Your task to perform on an android device: Open accessibility settings Image 0: 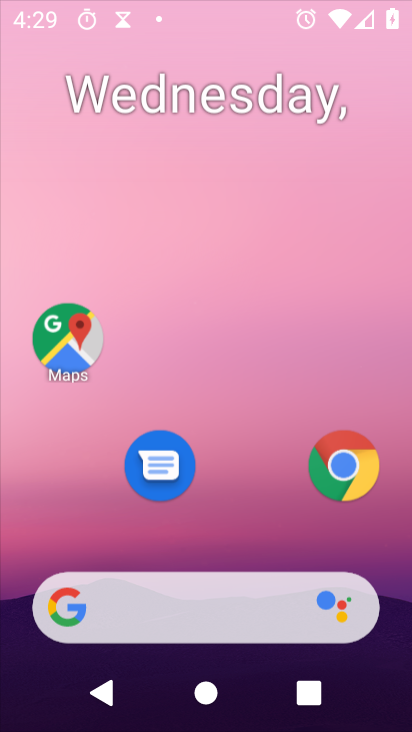
Step 0: drag from (265, 551) to (185, 172)
Your task to perform on an android device: Open accessibility settings Image 1: 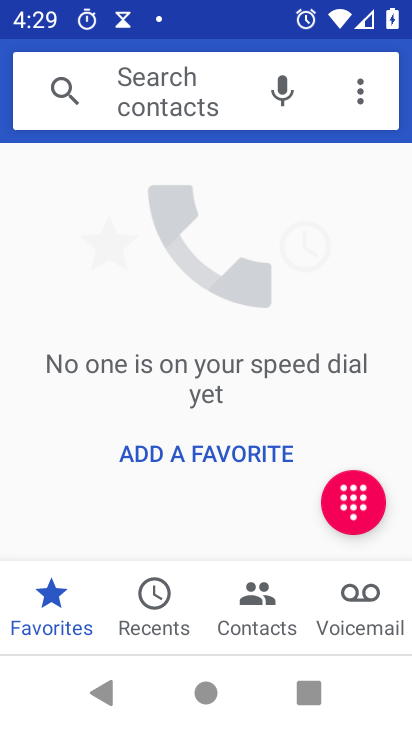
Step 1: press home button
Your task to perform on an android device: Open accessibility settings Image 2: 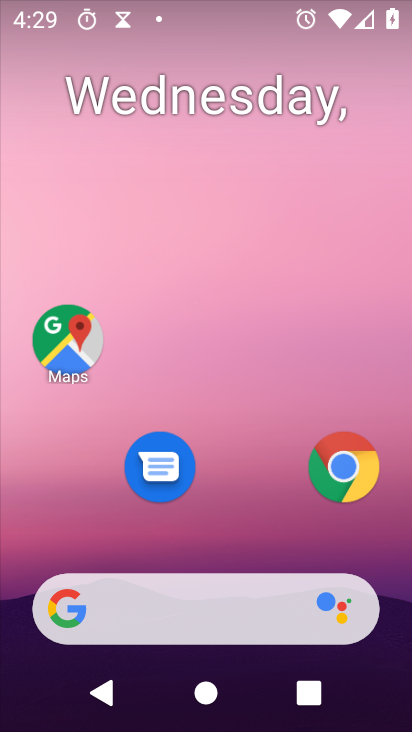
Step 2: drag from (241, 560) to (224, 95)
Your task to perform on an android device: Open accessibility settings Image 3: 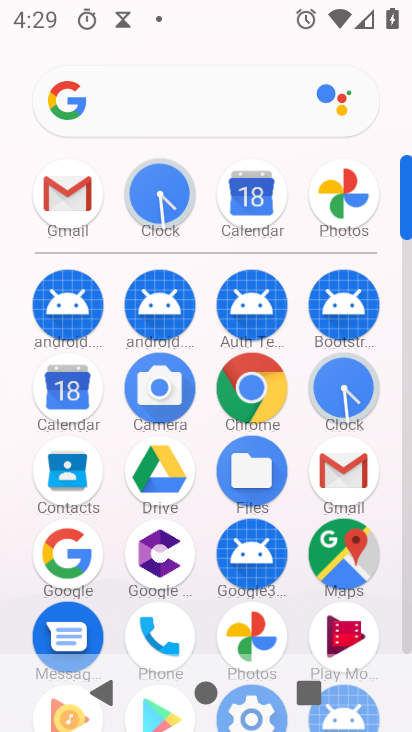
Step 3: click (407, 646)
Your task to perform on an android device: Open accessibility settings Image 4: 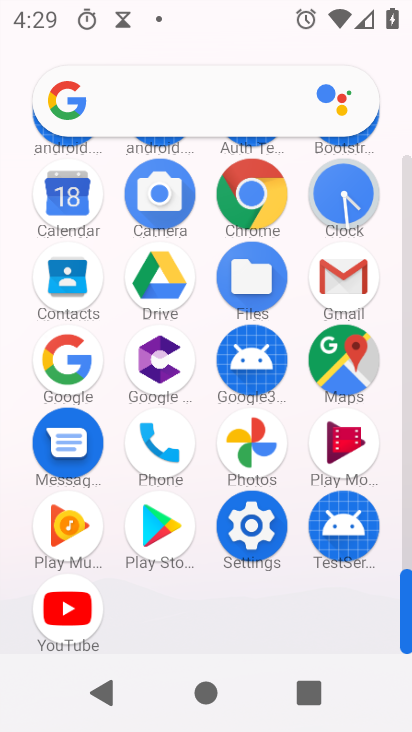
Step 4: click (264, 539)
Your task to perform on an android device: Open accessibility settings Image 5: 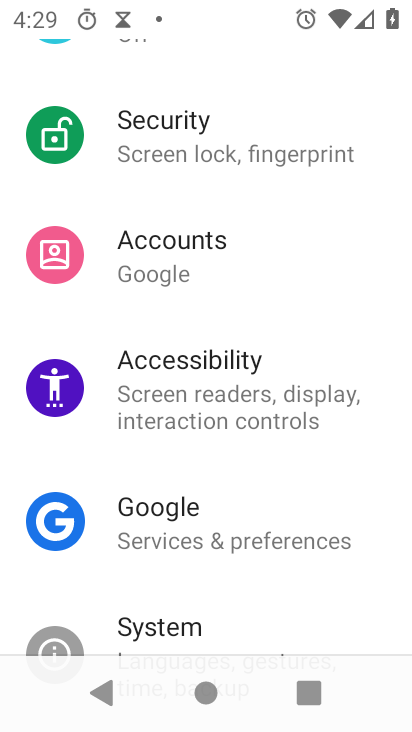
Step 5: click (267, 362)
Your task to perform on an android device: Open accessibility settings Image 6: 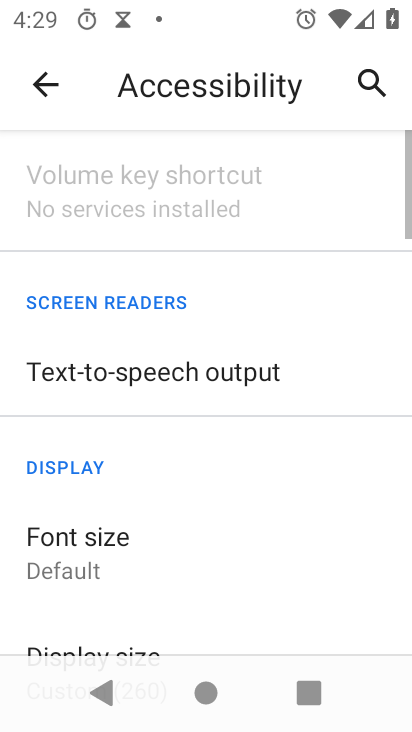
Step 6: task complete